Your task to perform on an android device: Open Google Maps Image 0: 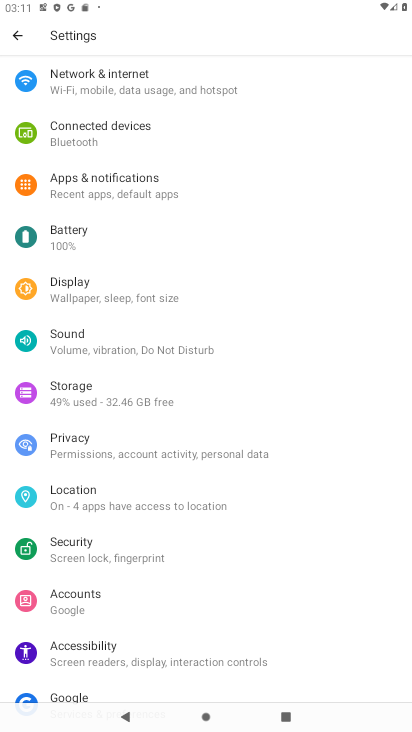
Step 0: press home button
Your task to perform on an android device: Open Google Maps Image 1: 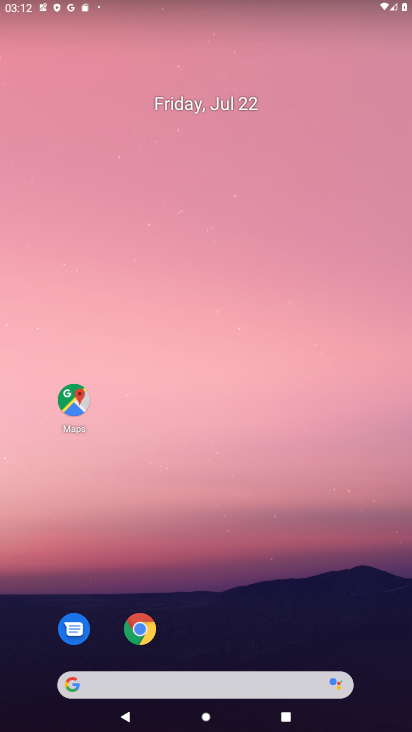
Step 1: click (69, 398)
Your task to perform on an android device: Open Google Maps Image 2: 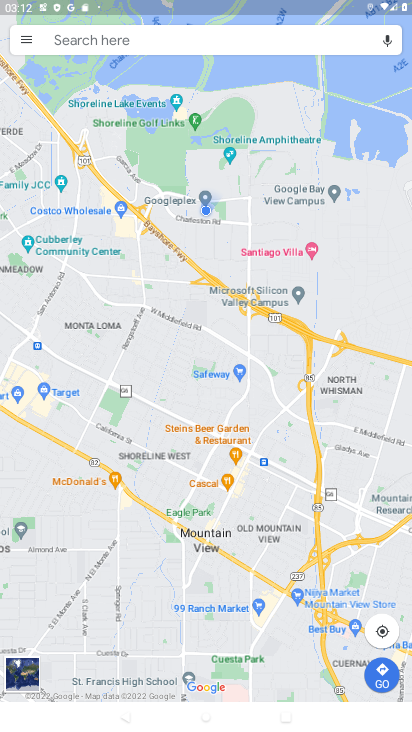
Step 2: click (168, 43)
Your task to perform on an android device: Open Google Maps Image 3: 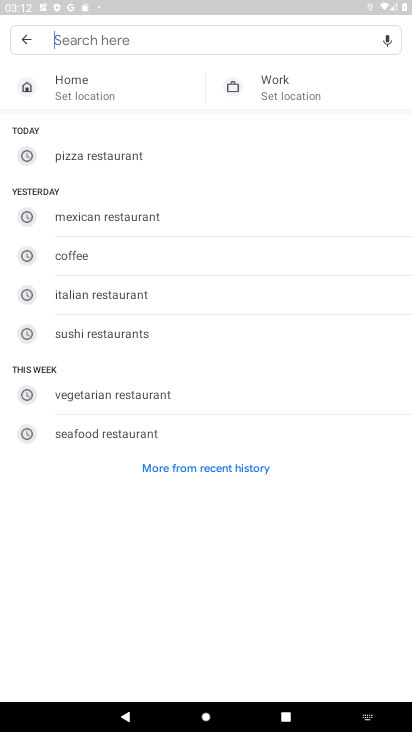
Step 3: task complete